Your task to perform on an android device: turn off priority inbox in the gmail app Image 0: 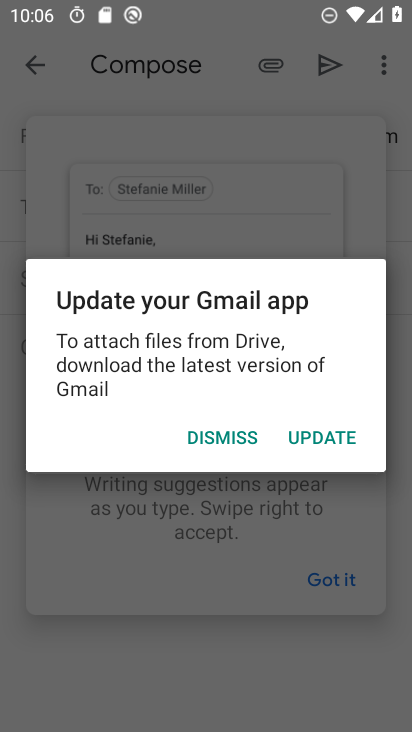
Step 0: press home button
Your task to perform on an android device: turn off priority inbox in the gmail app Image 1: 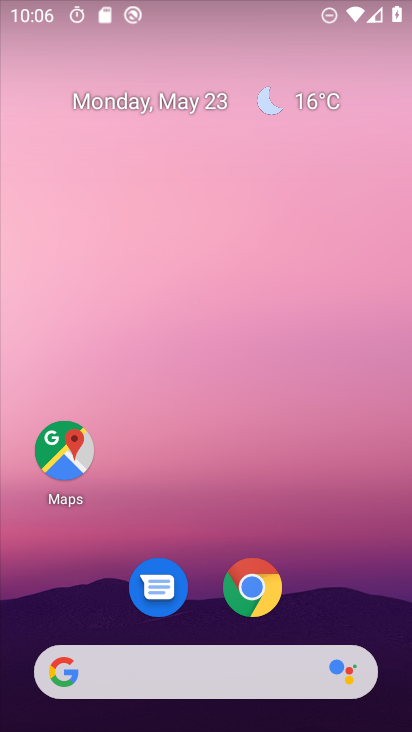
Step 1: drag from (239, 516) to (238, 2)
Your task to perform on an android device: turn off priority inbox in the gmail app Image 2: 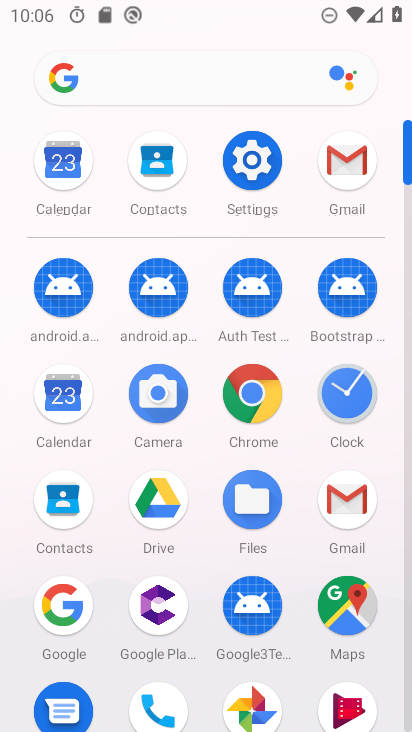
Step 2: click (351, 161)
Your task to perform on an android device: turn off priority inbox in the gmail app Image 3: 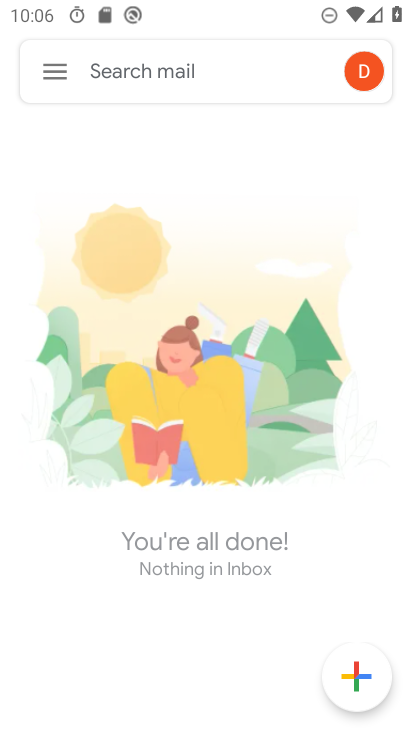
Step 3: click (52, 65)
Your task to perform on an android device: turn off priority inbox in the gmail app Image 4: 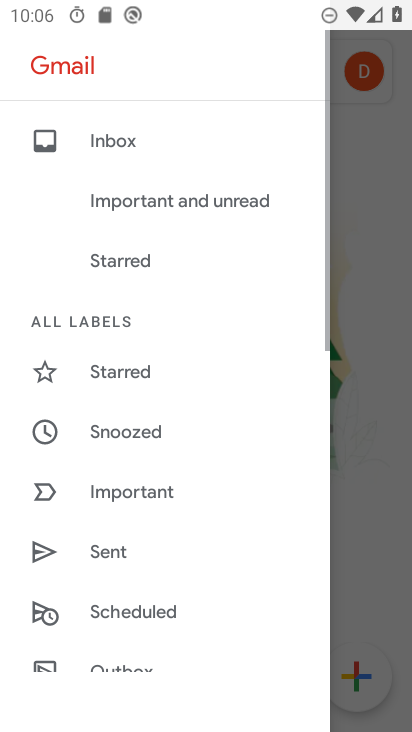
Step 4: drag from (162, 639) to (223, 66)
Your task to perform on an android device: turn off priority inbox in the gmail app Image 5: 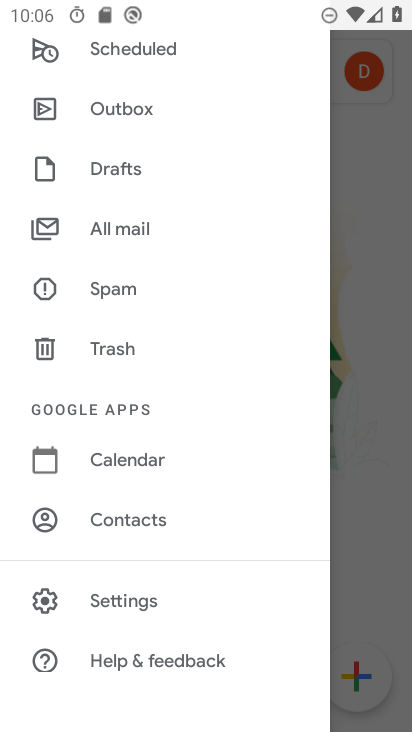
Step 5: click (134, 586)
Your task to perform on an android device: turn off priority inbox in the gmail app Image 6: 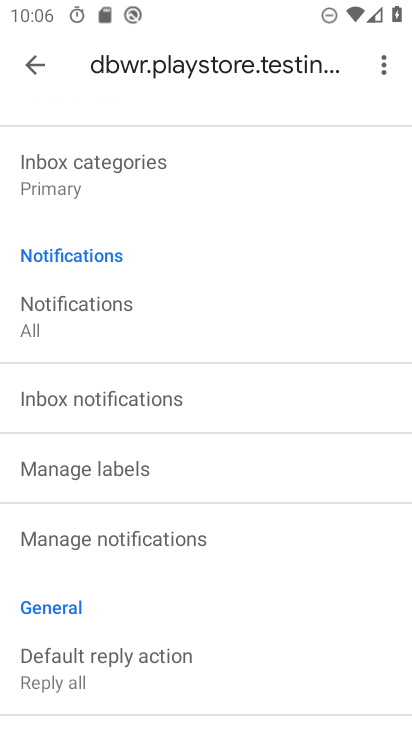
Step 6: drag from (131, 242) to (131, 644)
Your task to perform on an android device: turn off priority inbox in the gmail app Image 7: 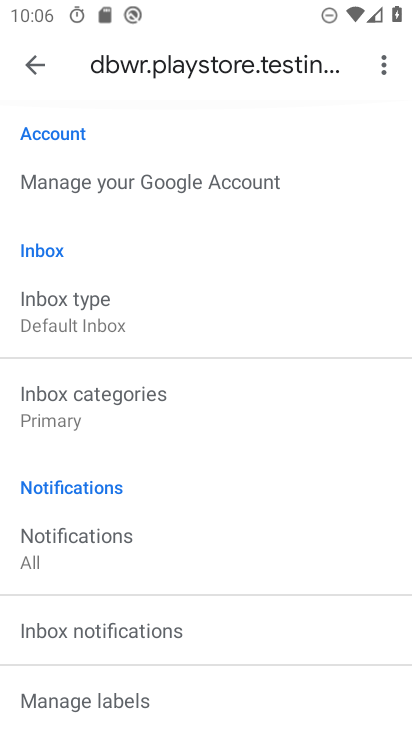
Step 7: click (48, 308)
Your task to perform on an android device: turn off priority inbox in the gmail app Image 8: 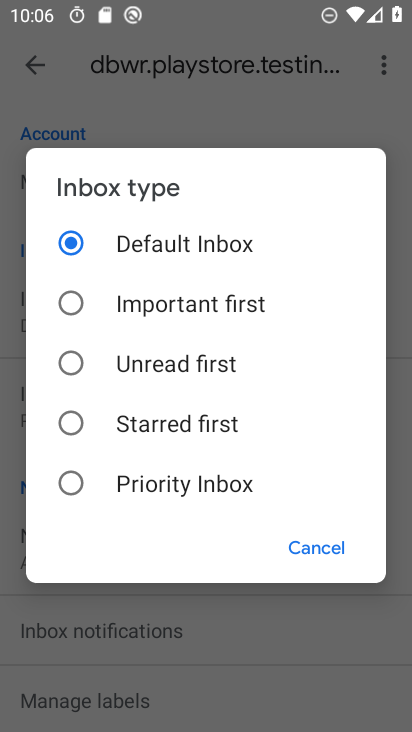
Step 8: click (67, 236)
Your task to perform on an android device: turn off priority inbox in the gmail app Image 9: 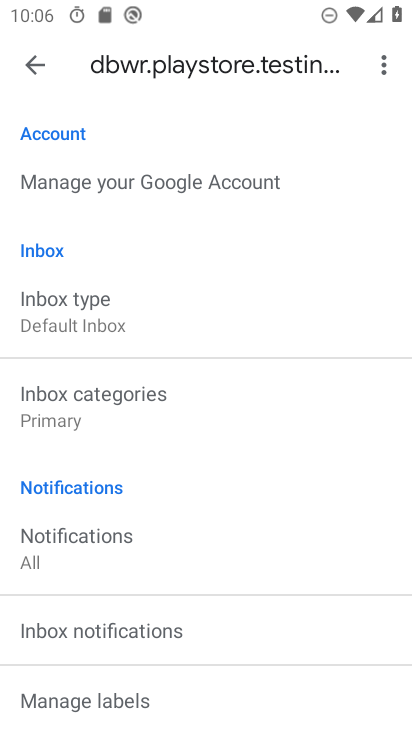
Step 9: task complete